Your task to perform on an android device: turn off picture-in-picture Image 0: 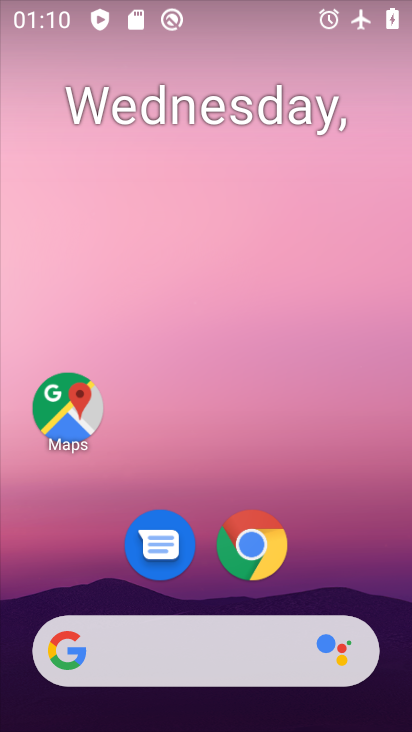
Step 0: click (264, 536)
Your task to perform on an android device: turn off picture-in-picture Image 1: 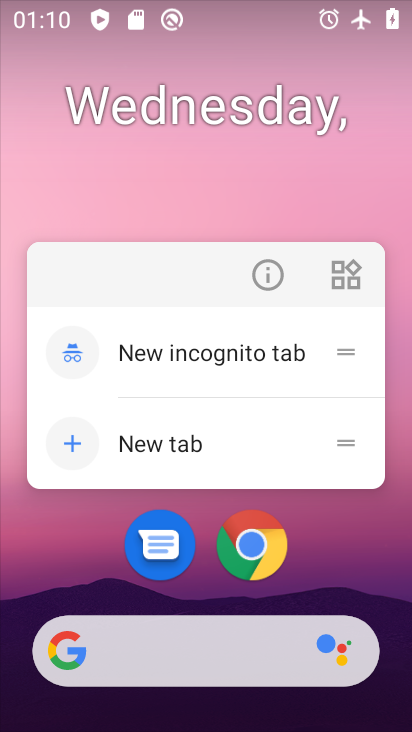
Step 1: click (271, 274)
Your task to perform on an android device: turn off picture-in-picture Image 2: 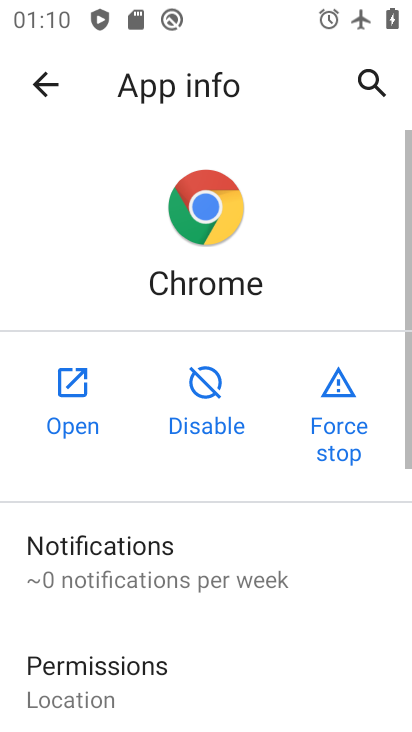
Step 2: drag from (263, 594) to (318, 33)
Your task to perform on an android device: turn off picture-in-picture Image 3: 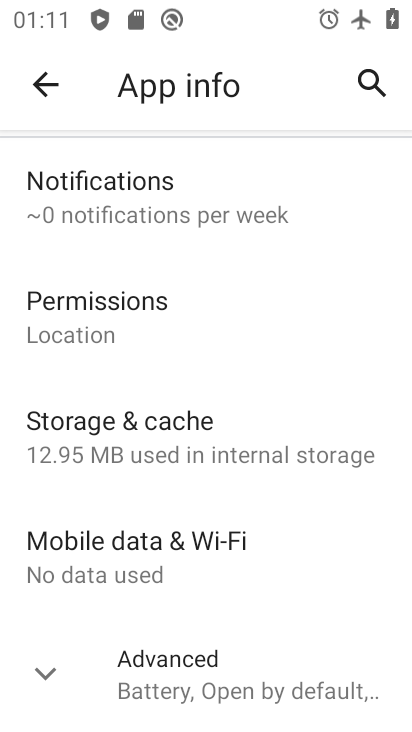
Step 3: drag from (278, 589) to (202, 137)
Your task to perform on an android device: turn off picture-in-picture Image 4: 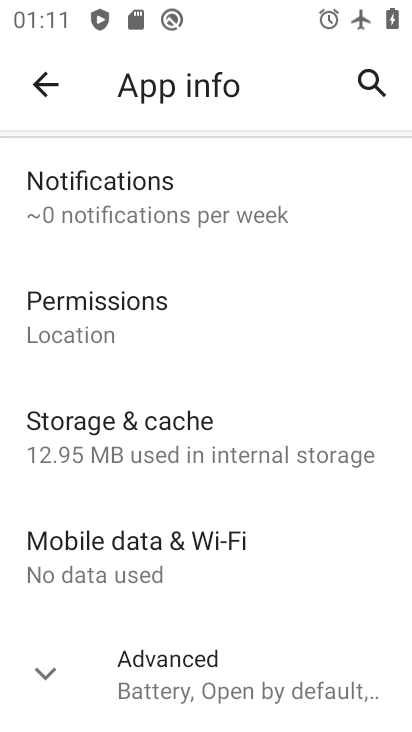
Step 4: click (244, 698)
Your task to perform on an android device: turn off picture-in-picture Image 5: 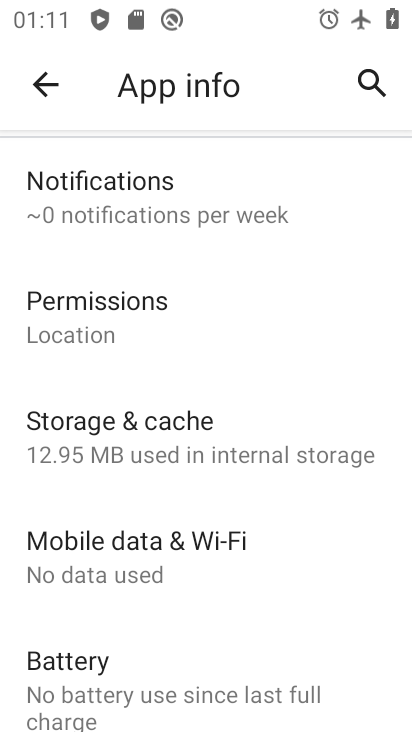
Step 5: drag from (238, 612) to (192, 51)
Your task to perform on an android device: turn off picture-in-picture Image 6: 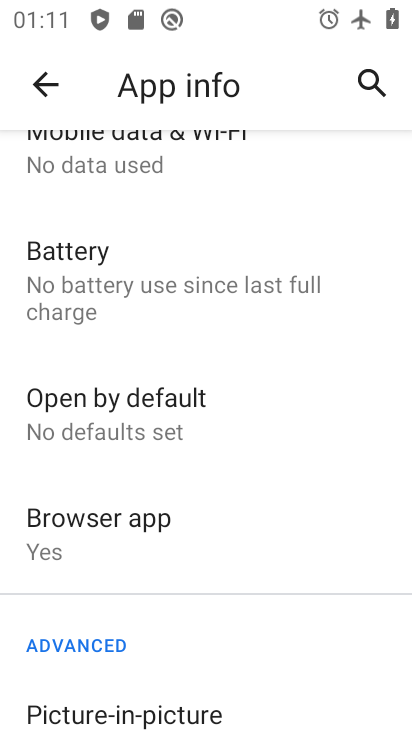
Step 6: drag from (228, 363) to (288, 47)
Your task to perform on an android device: turn off picture-in-picture Image 7: 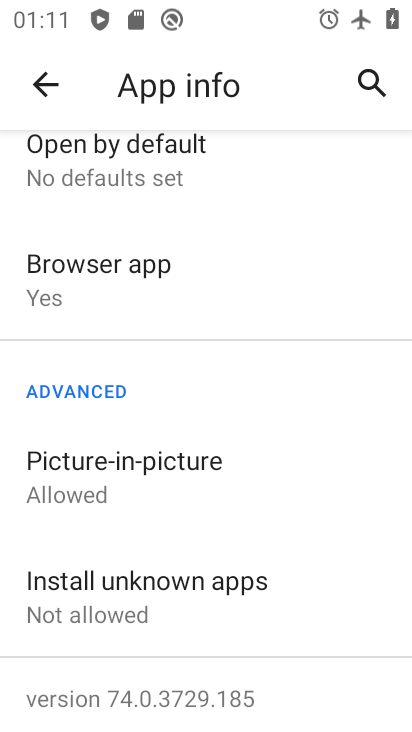
Step 7: click (193, 462)
Your task to perform on an android device: turn off picture-in-picture Image 8: 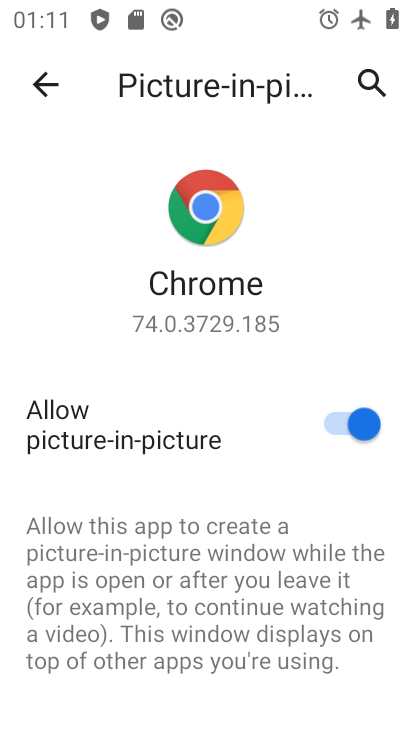
Step 8: click (350, 435)
Your task to perform on an android device: turn off picture-in-picture Image 9: 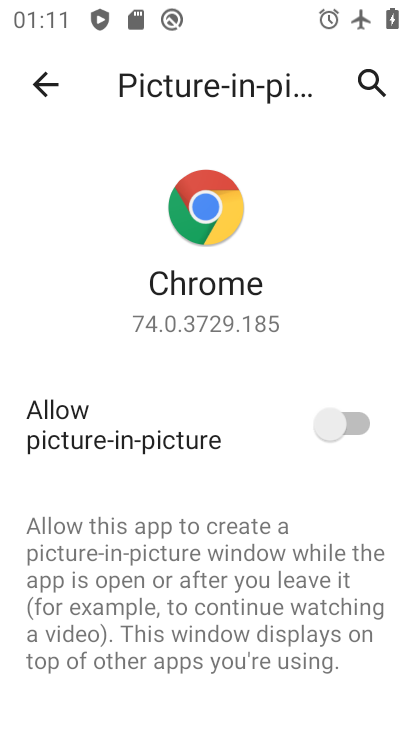
Step 9: task complete